Your task to perform on an android device: Open calendar and show me the first week of next month Image 0: 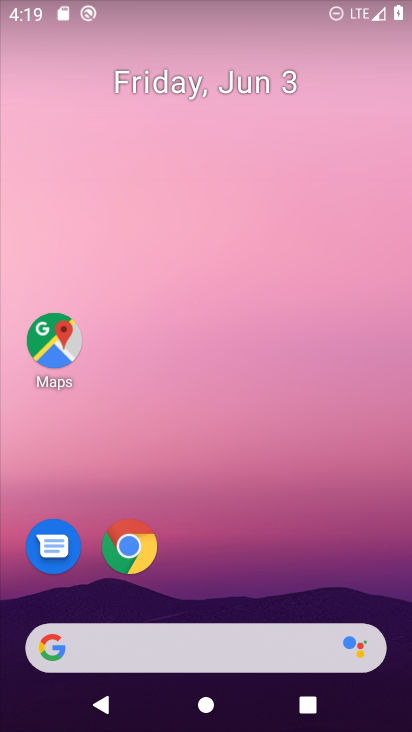
Step 0: drag from (227, 545) to (318, 2)
Your task to perform on an android device: Open calendar and show me the first week of next month Image 1: 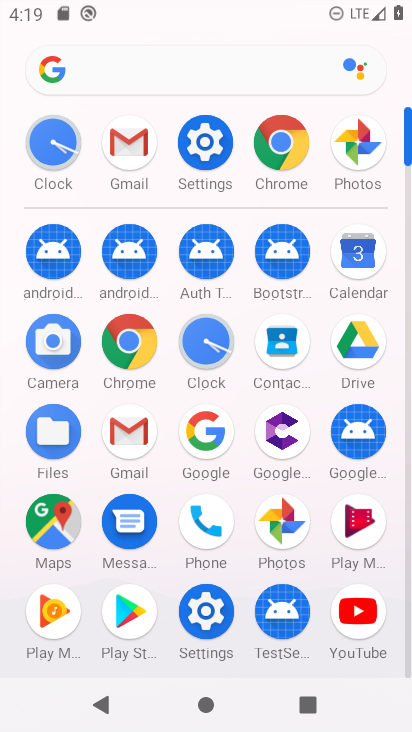
Step 1: click (359, 245)
Your task to perform on an android device: Open calendar and show me the first week of next month Image 2: 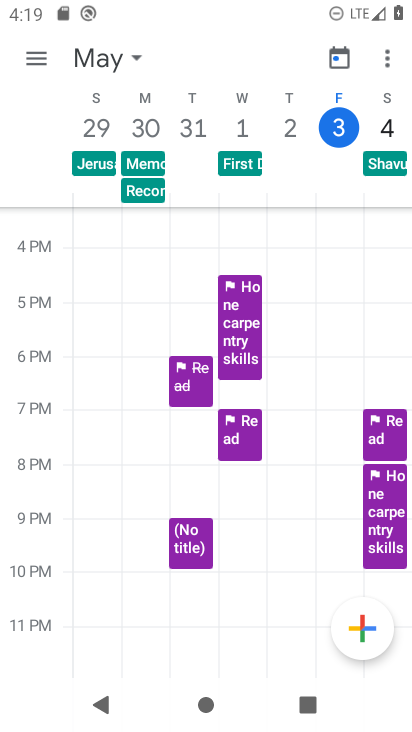
Step 2: task complete